Your task to perform on an android device: Open calendar and show me the first week of next month Image 0: 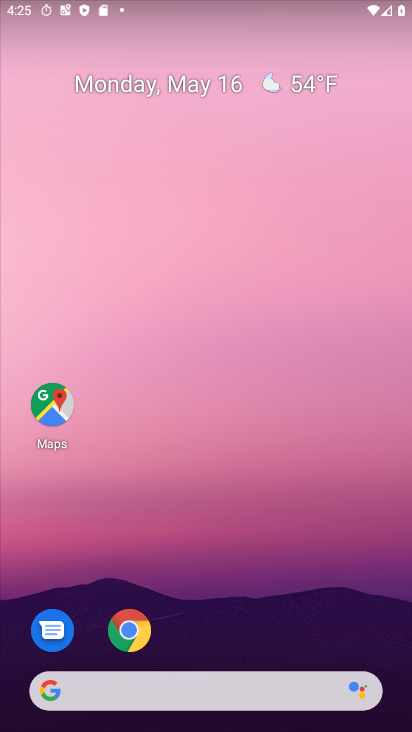
Step 0: drag from (229, 623) to (345, 6)
Your task to perform on an android device: Open calendar and show me the first week of next month Image 1: 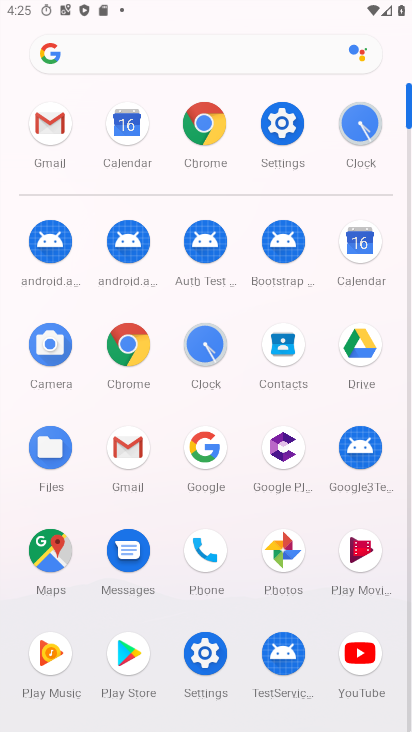
Step 1: click (367, 242)
Your task to perform on an android device: Open calendar and show me the first week of next month Image 2: 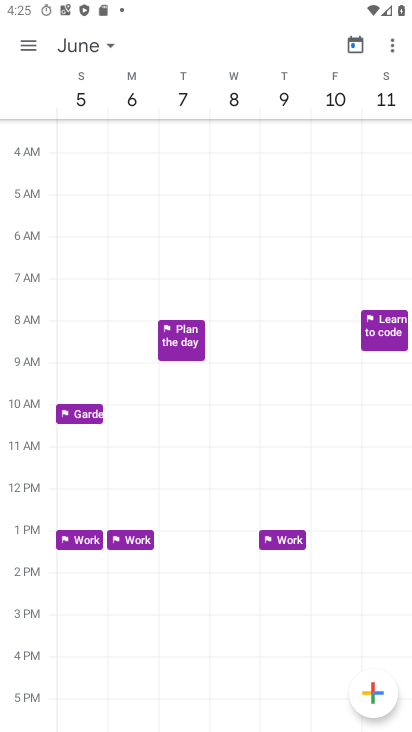
Step 2: click (95, 40)
Your task to perform on an android device: Open calendar and show me the first week of next month Image 3: 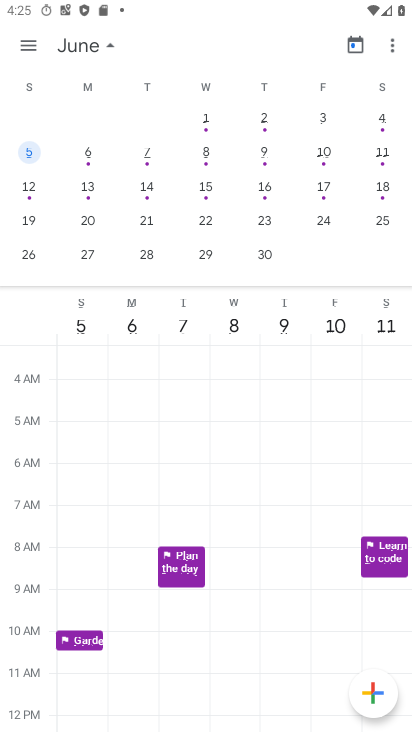
Step 3: click (91, 153)
Your task to perform on an android device: Open calendar and show me the first week of next month Image 4: 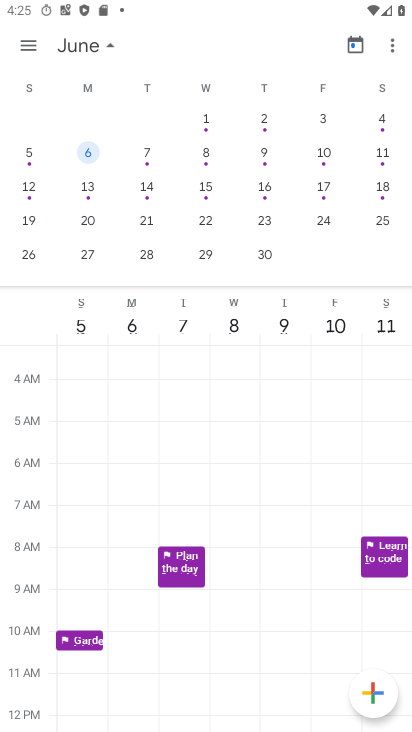
Step 4: click (113, 53)
Your task to perform on an android device: Open calendar and show me the first week of next month Image 5: 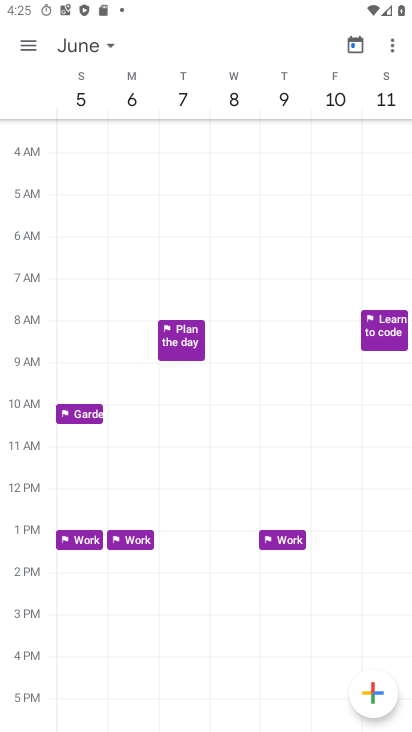
Step 5: task complete